Your task to perform on an android device: Go to CNN.com Image 0: 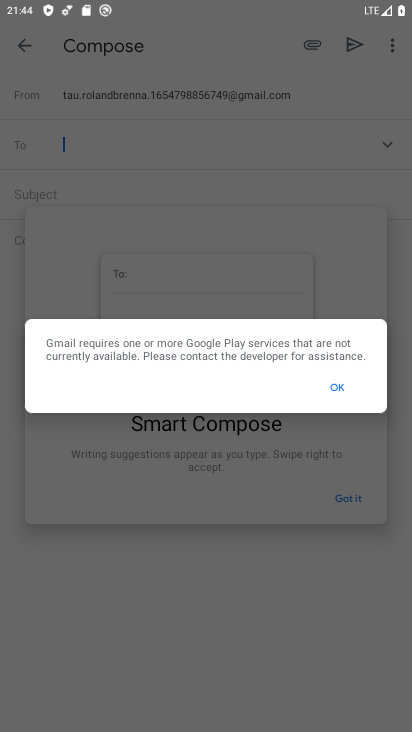
Step 0: press home button
Your task to perform on an android device: Go to CNN.com Image 1: 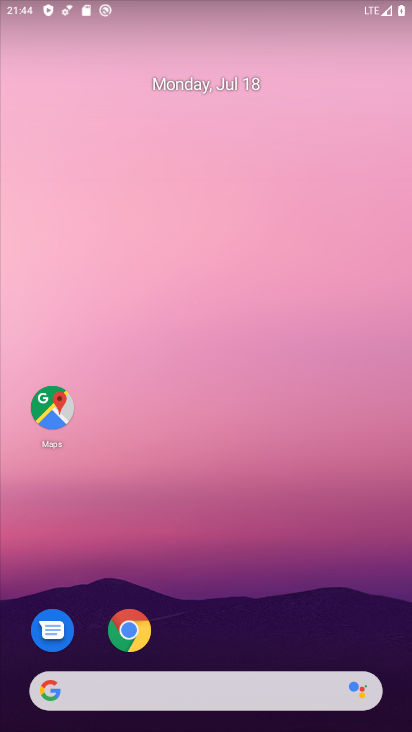
Step 1: drag from (185, 630) to (186, 258)
Your task to perform on an android device: Go to CNN.com Image 2: 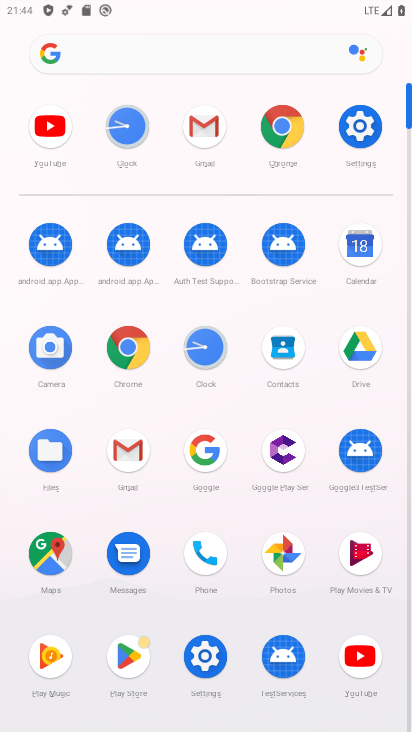
Step 2: click (273, 129)
Your task to perform on an android device: Go to CNN.com Image 3: 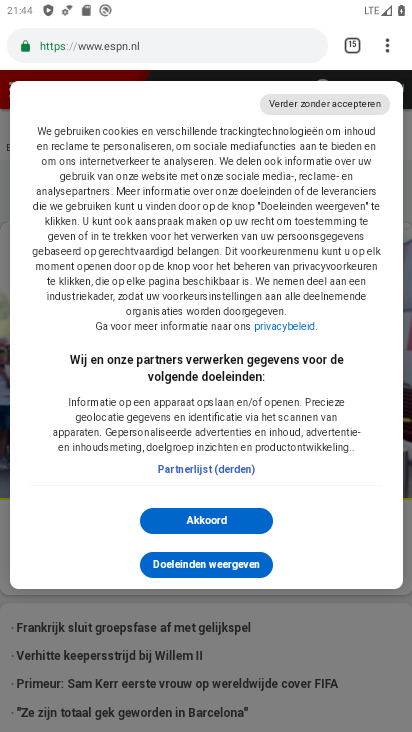
Step 3: click (390, 52)
Your task to perform on an android device: Go to CNN.com Image 4: 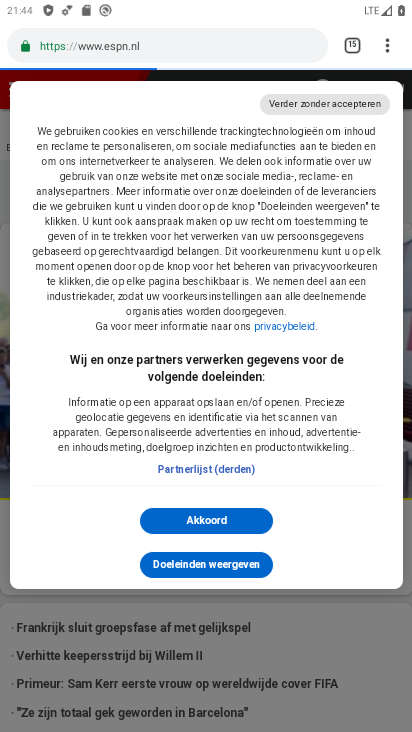
Step 4: click (390, 47)
Your task to perform on an android device: Go to CNN.com Image 5: 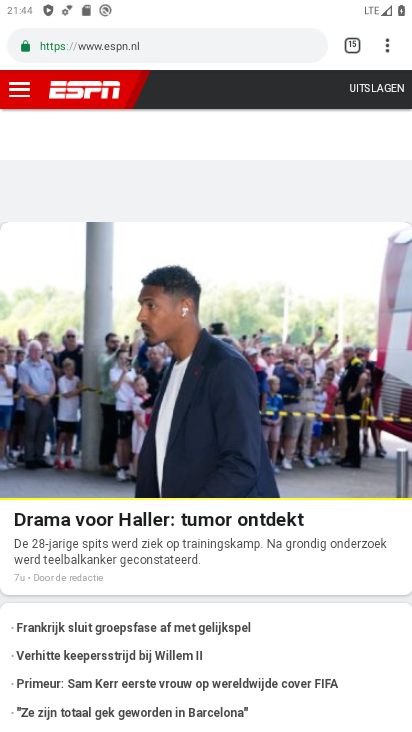
Step 5: click (390, 47)
Your task to perform on an android device: Go to CNN.com Image 6: 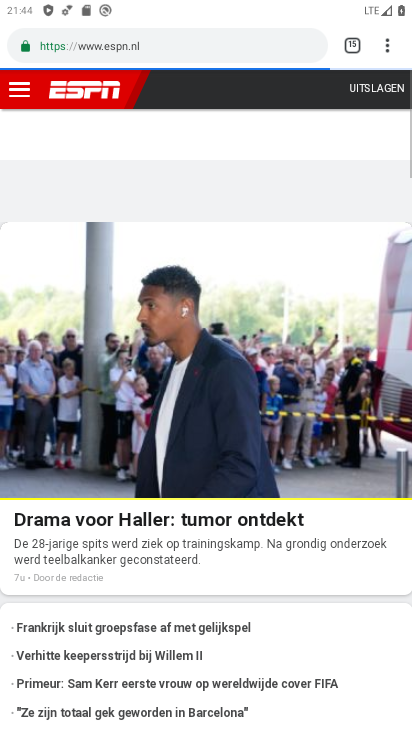
Step 6: click (369, 43)
Your task to perform on an android device: Go to CNN.com Image 7: 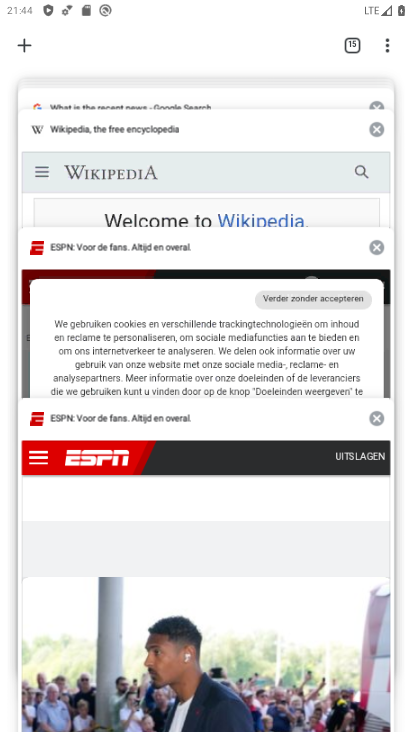
Step 7: click (393, 41)
Your task to perform on an android device: Go to CNN.com Image 8: 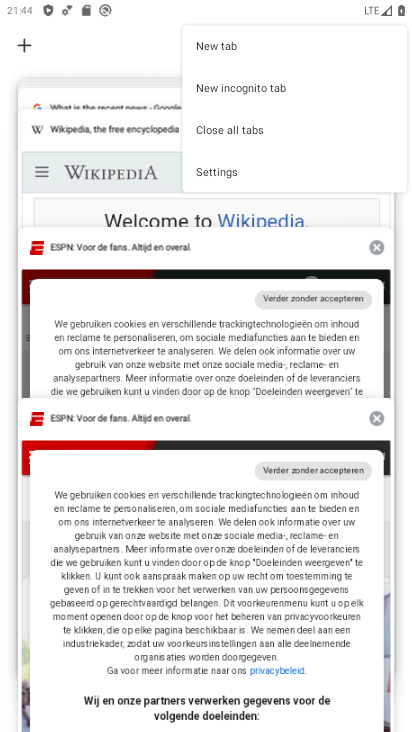
Step 8: click (243, 44)
Your task to perform on an android device: Go to CNN.com Image 9: 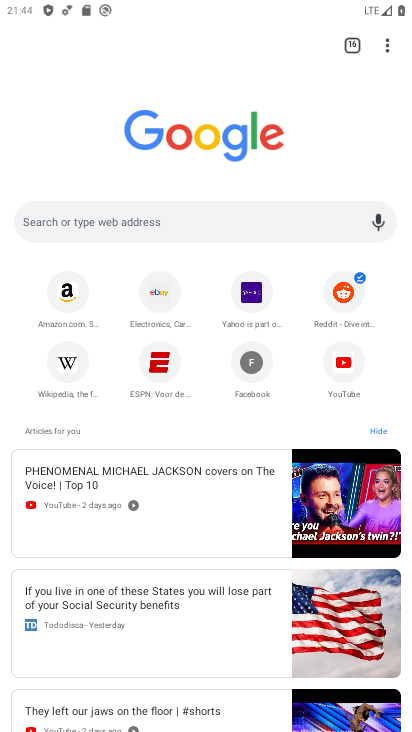
Step 9: click (192, 214)
Your task to perform on an android device: Go to CNN.com Image 10: 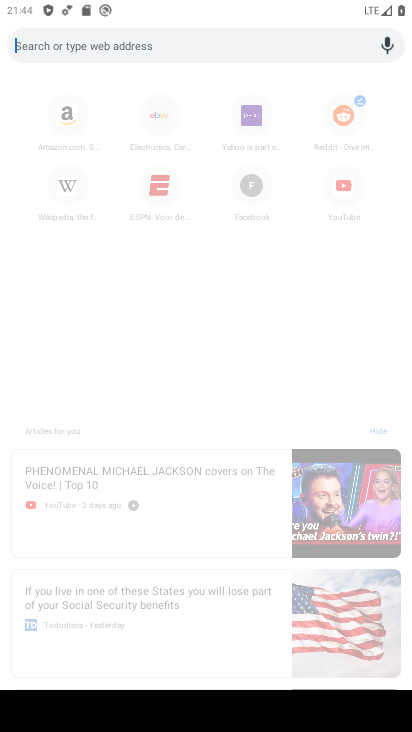
Step 10: type "CNN.com "
Your task to perform on an android device: Go to CNN.com Image 11: 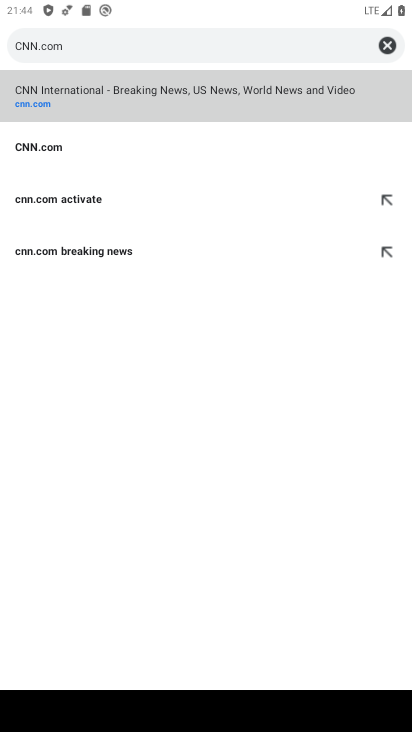
Step 11: click (169, 96)
Your task to perform on an android device: Go to CNN.com Image 12: 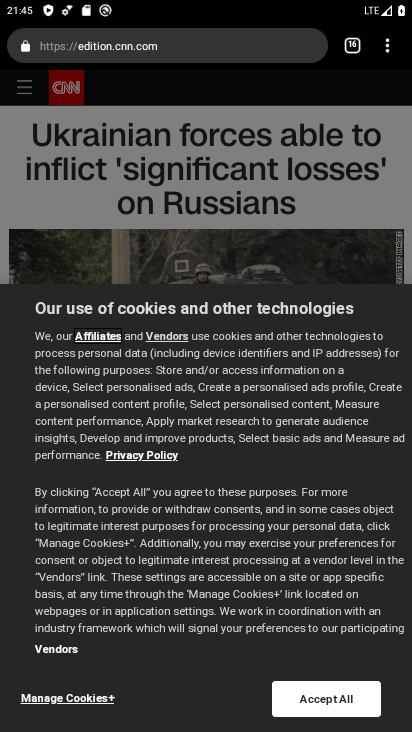
Step 12: task complete